Your task to perform on an android device: Open calendar and show me the third week of next month Image 0: 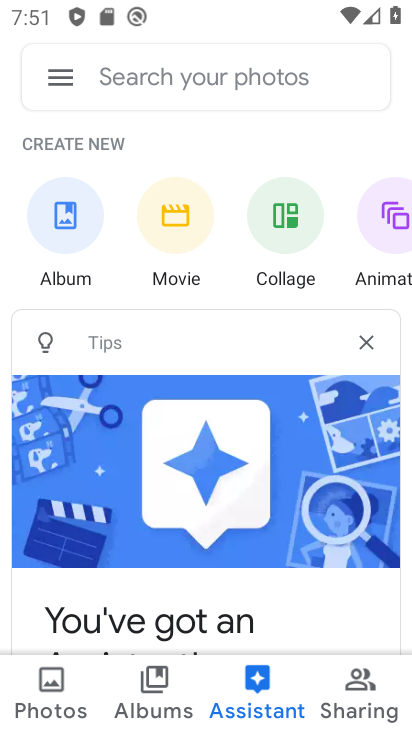
Step 0: press home button
Your task to perform on an android device: Open calendar and show me the third week of next month Image 1: 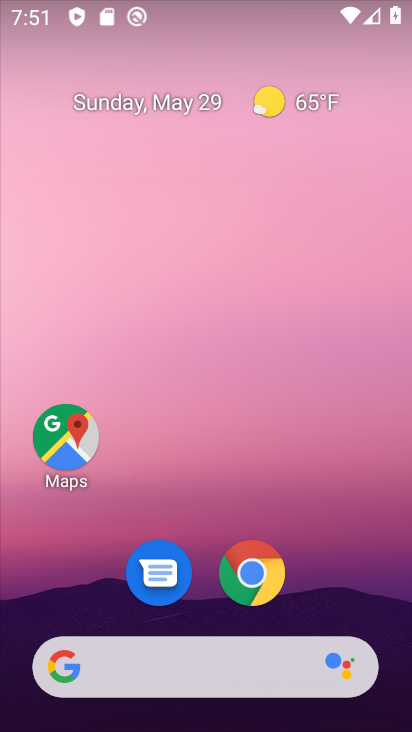
Step 1: drag from (199, 591) to (205, 200)
Your task to perform on an android device: Open calendar and show me the third week of next month Image 2: 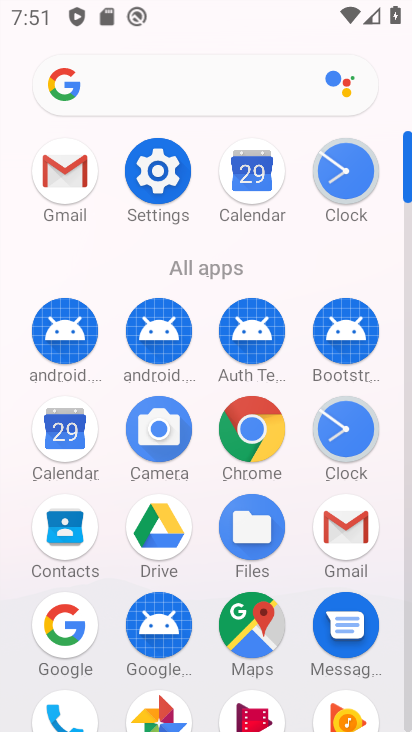
Step 2: click (68, 416)
Your task to perform on an android device: Open calendar and show me the third week of next month Image 3: 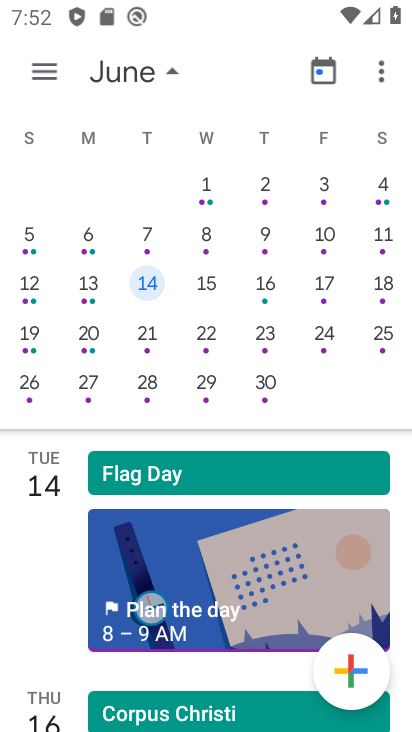
Step 3: click (26, 285)
Your task to perform on an android device: Open calendar and show me the third week of next month Image 4: 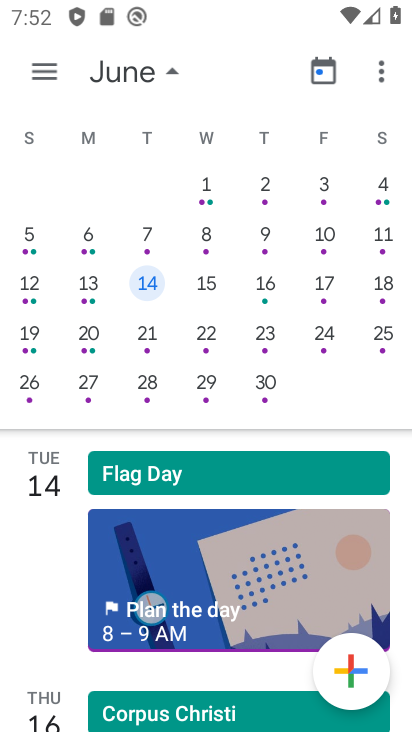
Step 4: click (36, 281)
Your task to perform on an android device: Open calendar and show me the third week of next month Image 5: 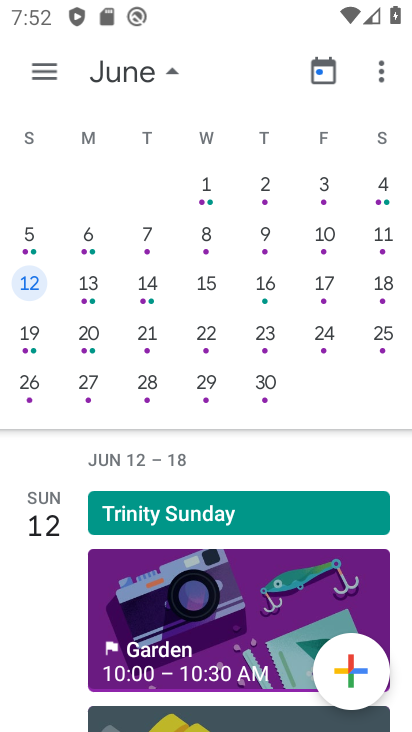
Step 5: task complete